Your task to perform on an android device: turn on data saver in the chrome app Image 0: 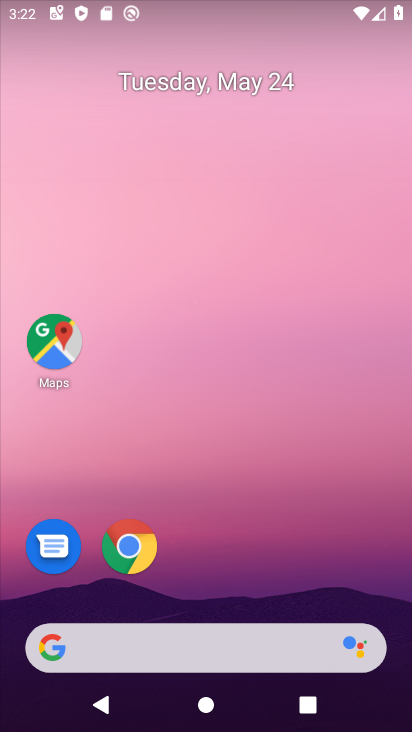
Step 0: click (134, 548)
Your task to perform on an android device: turn on data saver in the chrome app Image 1: 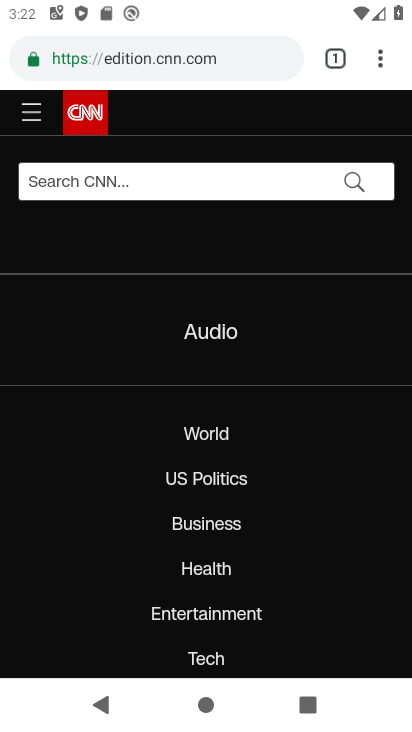
Step 1: click (382, 60)
Your task to perform on an android device: turn on data saver in the chrome app Image 2: 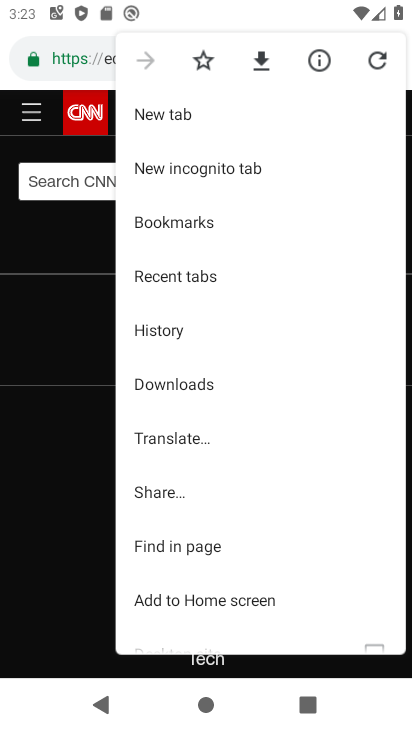
Step 2: drag from (271, 564) to (247, 140)
Your task to perform on an android device: turn on data saver in the chrome app Image 3: 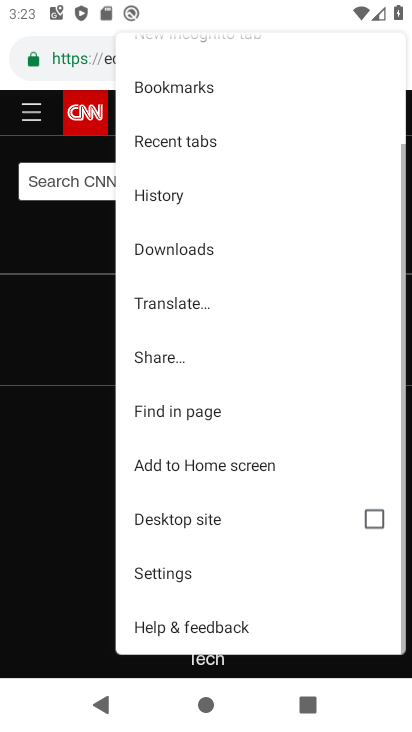
Step 3: click (207, 567)
Your task to perform on an android device: turn on data saver in the chrome app Image 4: 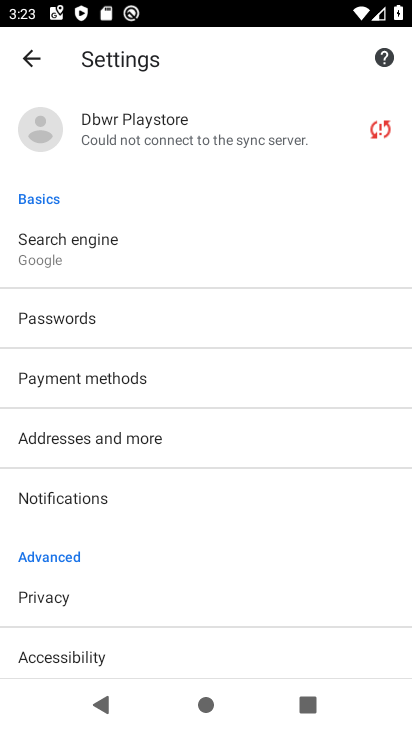
Step 4: drag from (214, 609) to (221, 223)
Your task to perform on an android device: turn on data saver in the chrome app Image 5: 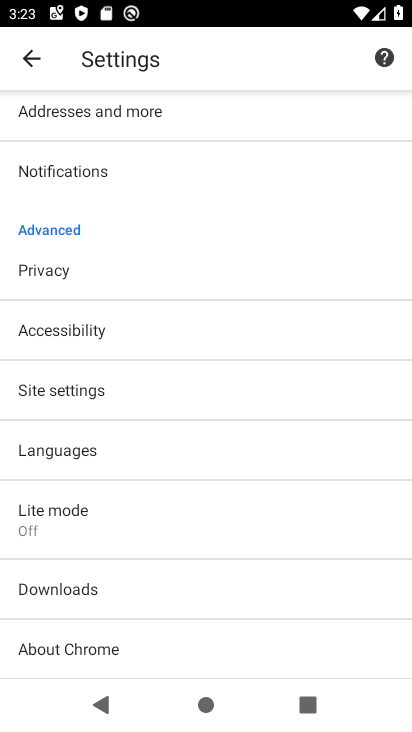
Step 5: click (142, 519)
Your task to perform on an android device: turn on data saver in the chrome app Image 6: 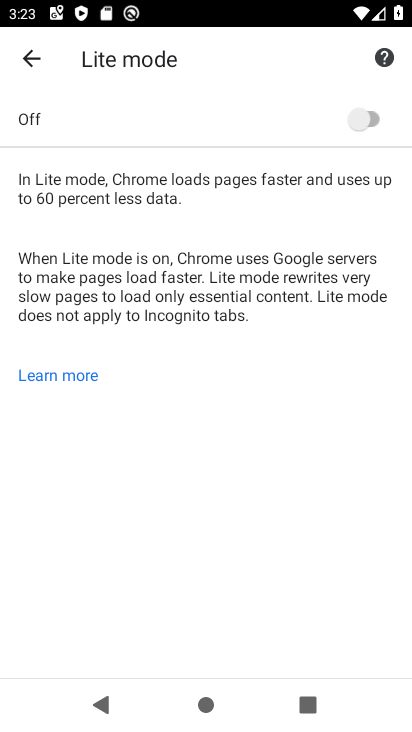
Step 6: click (365, 120)
Your task to perform on an android device: turn on data saver in the chrome app Image 7: 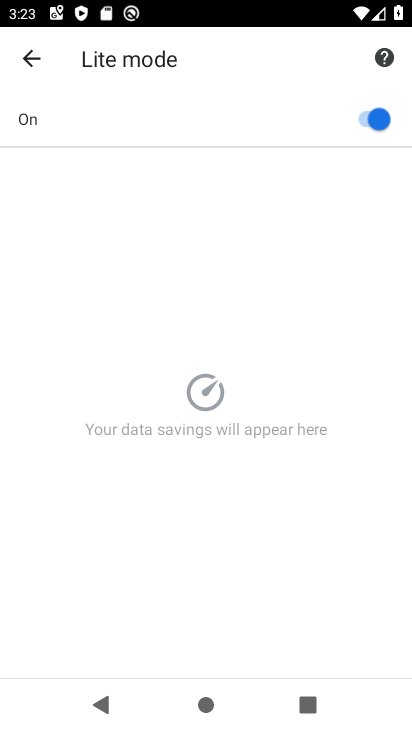
Step 7: task complete